Your task to perform on an android device: turn off wifi Image 0: 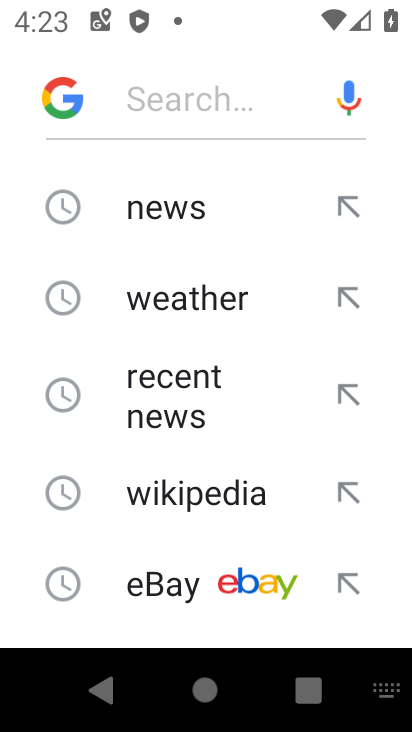
Step 0: press home button
Your task to perform on an android device: turn off wifi Image 1: 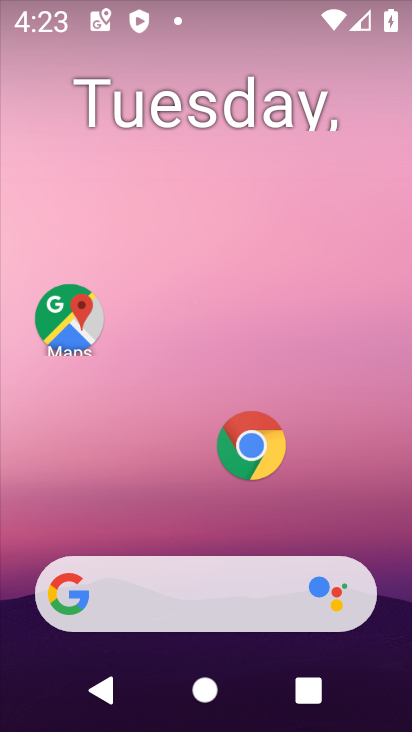
Step 1: drag from (200, 501) to (182, 4)
Your task to perform on an android device: turn off wifi Image 2: 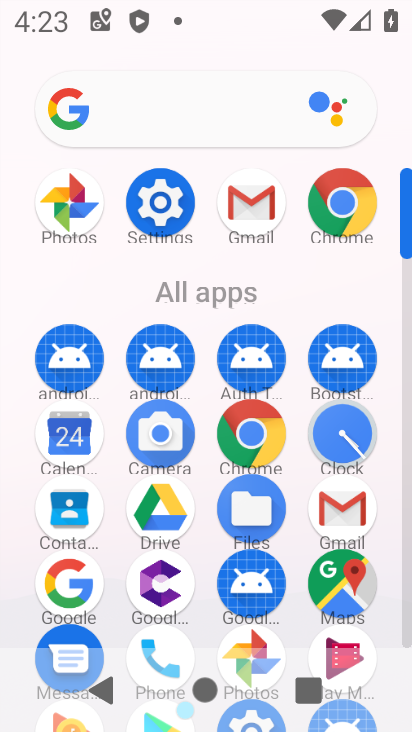
Step 2: click (161, 204)
Your task to perform on an android device: turn off wifi Image 3: 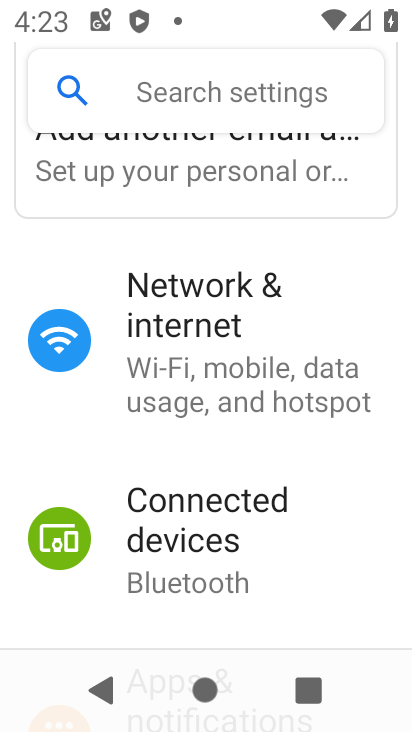
Step 3: click (205, 370)
Your task to perform on an android device: turn off wifi Image 4: 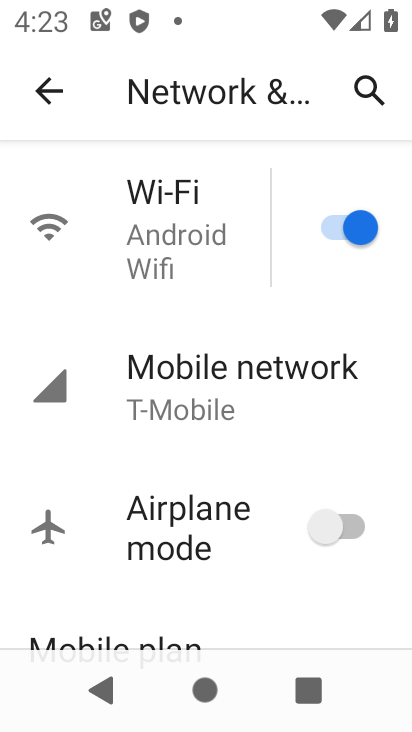
Step 4: click (332, 224)
Your task to perform on an android device: turn off wifi Image 5: 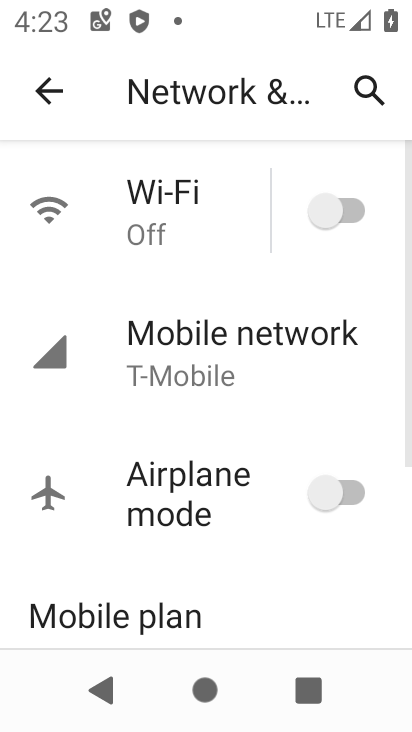
Step 5: task complete